Your task to perform on an android device: Open maps Image 0: 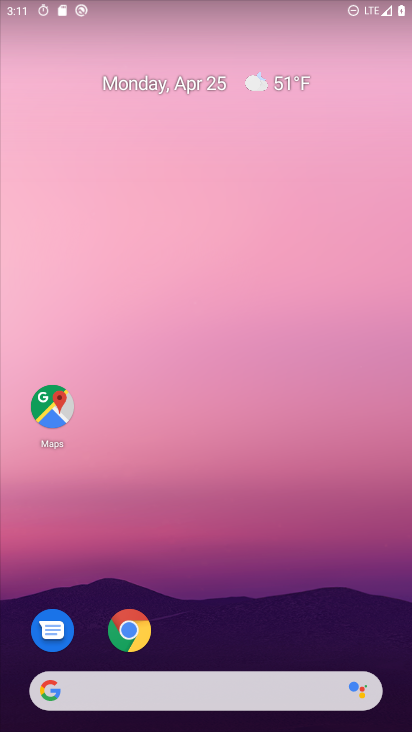
Step 0: drag from (204, 538) to (235, 49)
Your task to perform on an android device: Open maps Image 1: 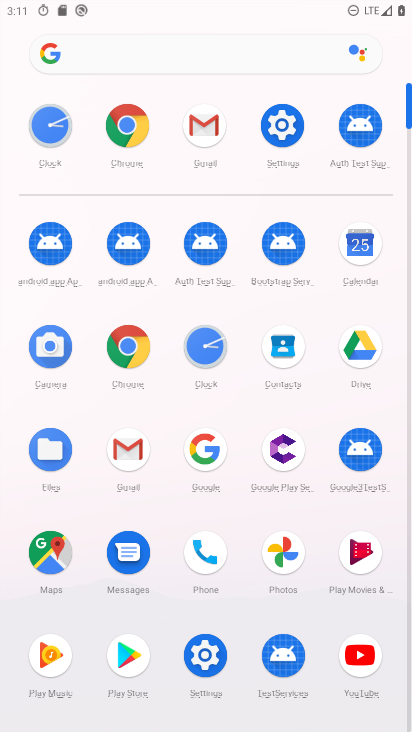
Step 1: click (52, 536)
Your task to perform on an android device: Open maps Image 2: 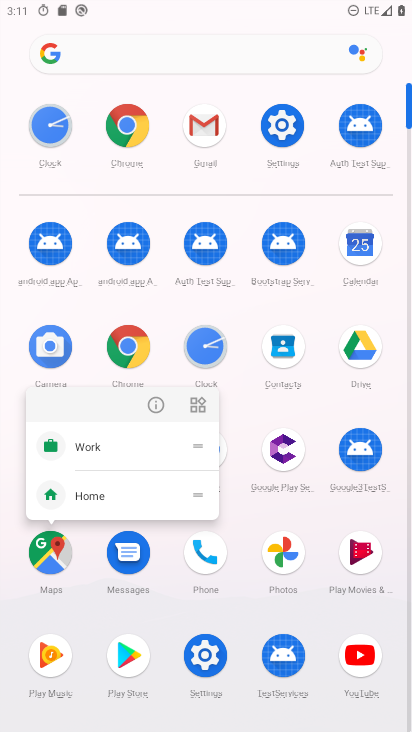
Step 2: click (147, 414)
Your task to perform on an android device: Open maps Image 3: 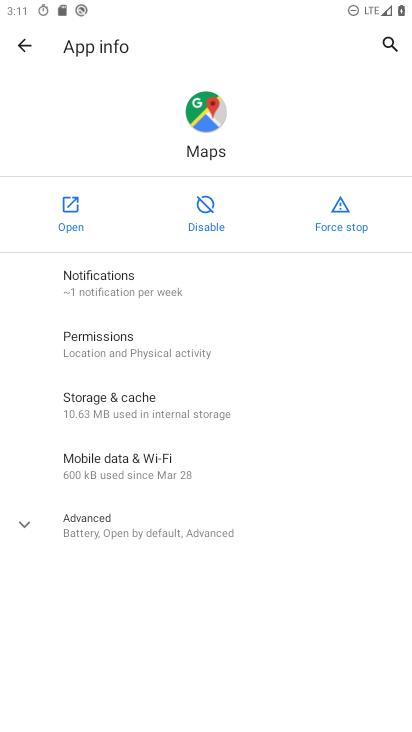
Step 3: click (73, 195)
Your task to perform on an android device: Open maps Image 4: 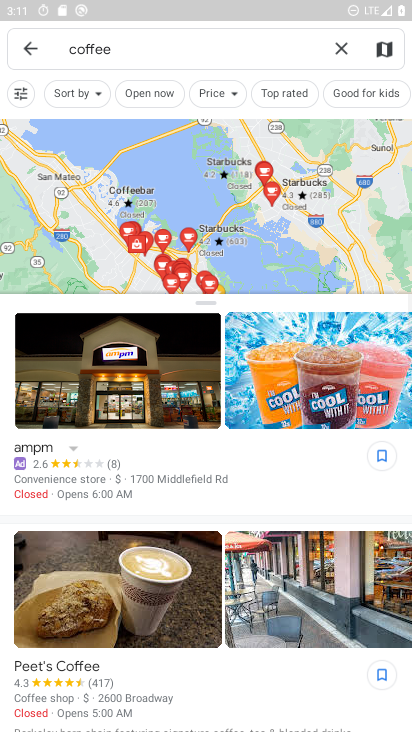
Step 4: task complete